Your task to perform on an android device: toggle priority inbox in the gmail app Image 0: 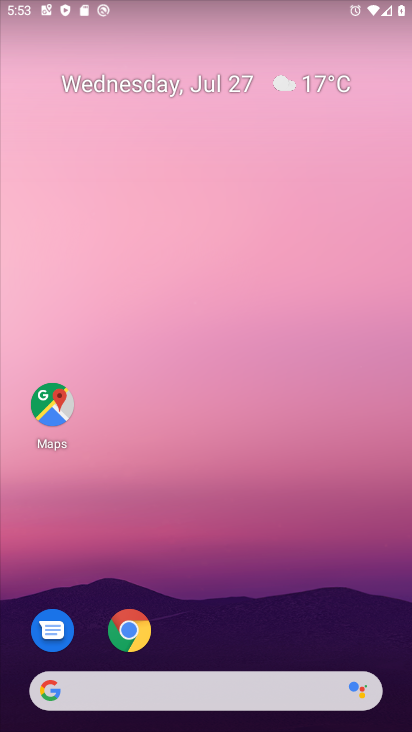
Step 0: drag from (232, 643) to (344, 52)
Your task to perform on an android device: toggle priority inbox in the gmail app Image 1: 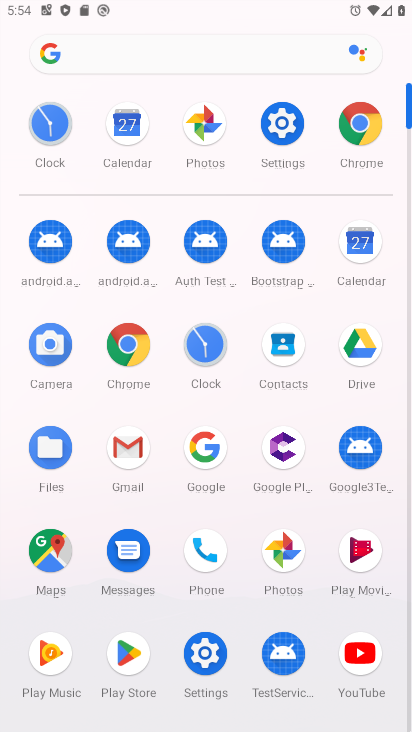
Step 1: click (116, 445)
Your task to perform on an android device: toggle priority inbox in the gmail app Image 2: 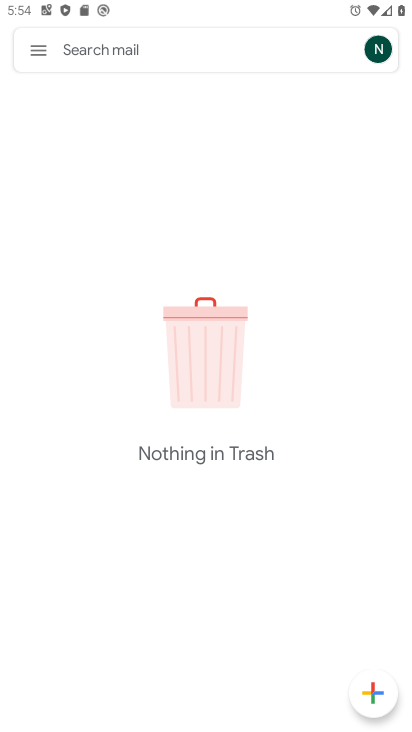
Step 2: click (40, 44)
Your task to perform on an android device: toggle priority inbox in the gmail app Image 3: 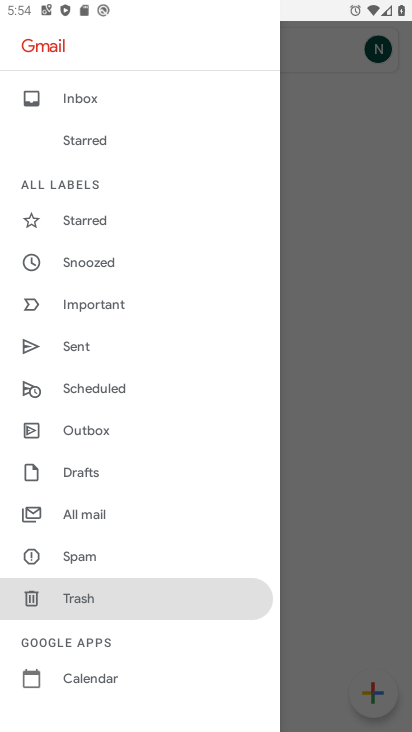
Step 3: drag from (143, 647) to (132, 182)
Your task to perform on an android device: toggle priority inbox in the gmail app Image 4: 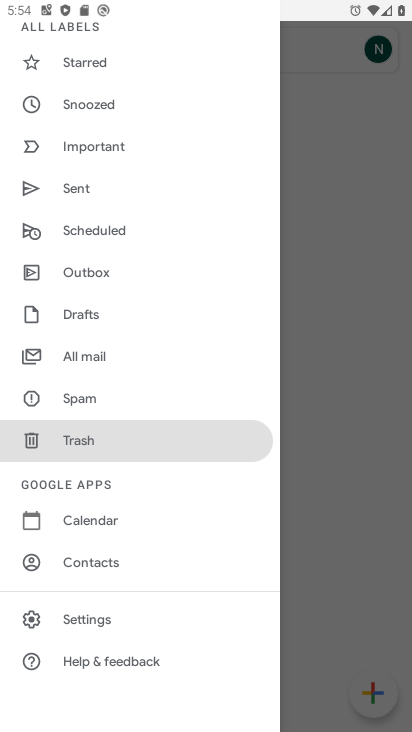
Step 4: click (118, 615)
Your task to perform on an android device: toggle priority inbox in the gmail app Image 5: 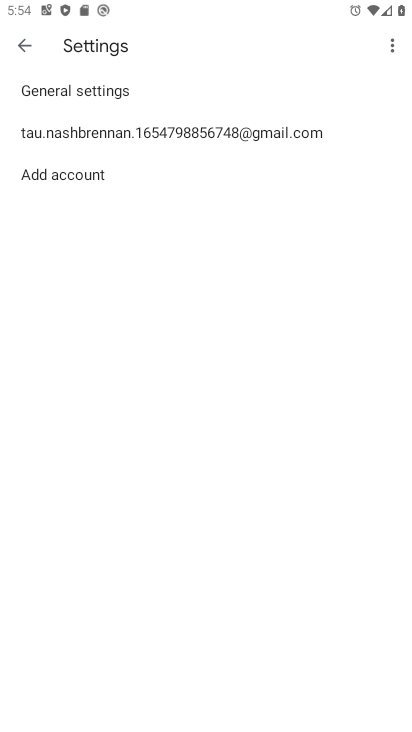
Step 5: click (98, 129)
Your task to perform on an android device: toggle priority inbox in the gmail app Image 6: 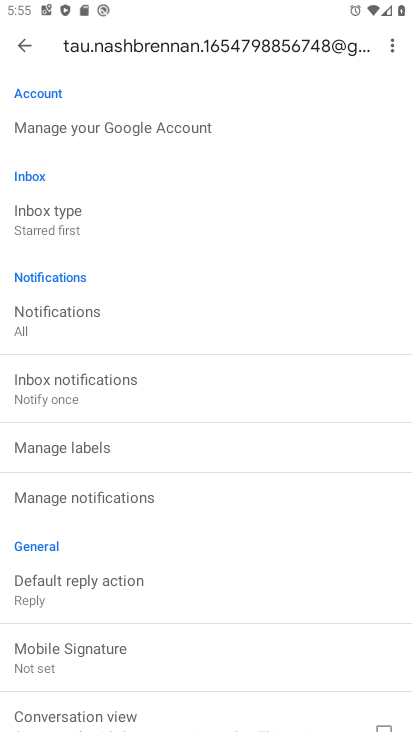
Step 6: click (89, 221)
Your task to perform on an android device: toggle priority inbox in the gmail app Image 7: 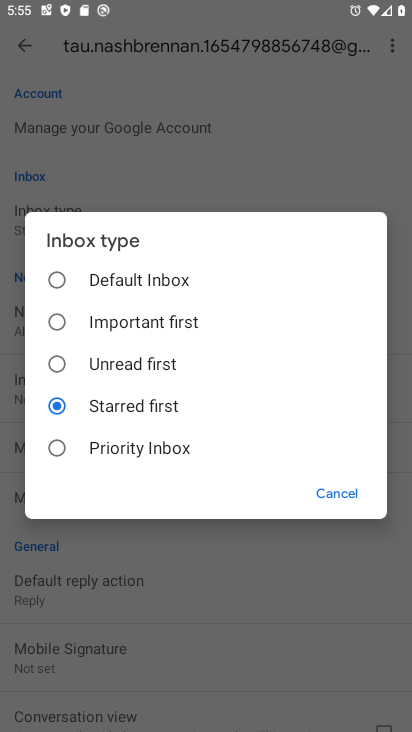
Step 7: click (55, 441)
Your task to perform on an android device: toggle priority inbox in the gmail app Image 8: 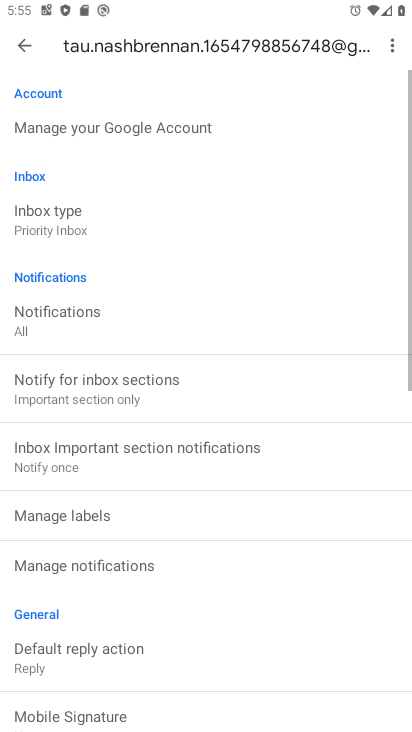
Step 8: task complete